Your task to perform on an android device: check out phone information Image 0: 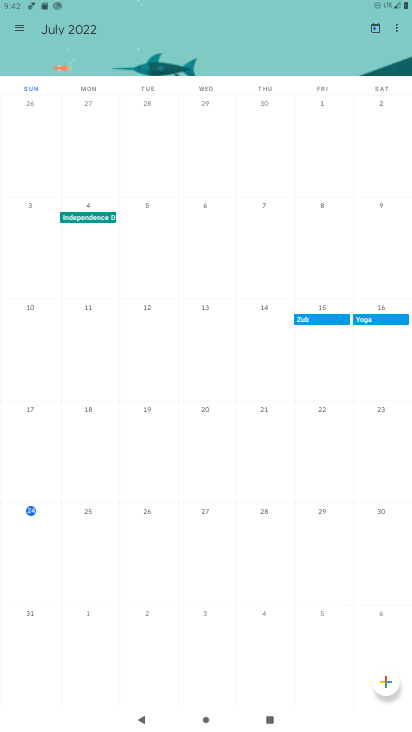
Step 0: press home button
Your task to perform on an android device: check out phone information Image 1: 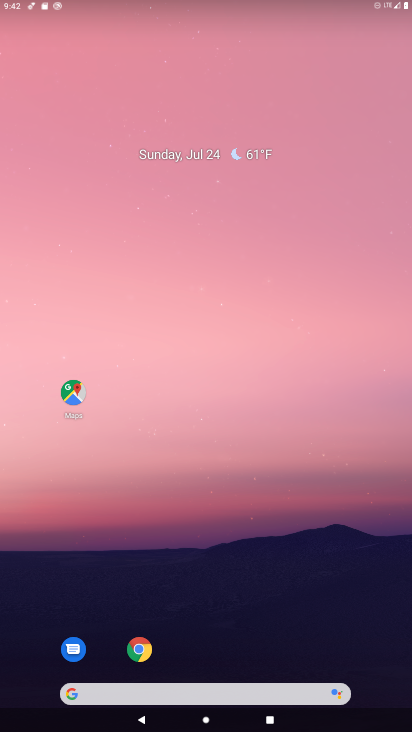
Step 1: drag from (298, 550) to (185, 123)
Your task to perform on an android device: check out phone information Image 2: 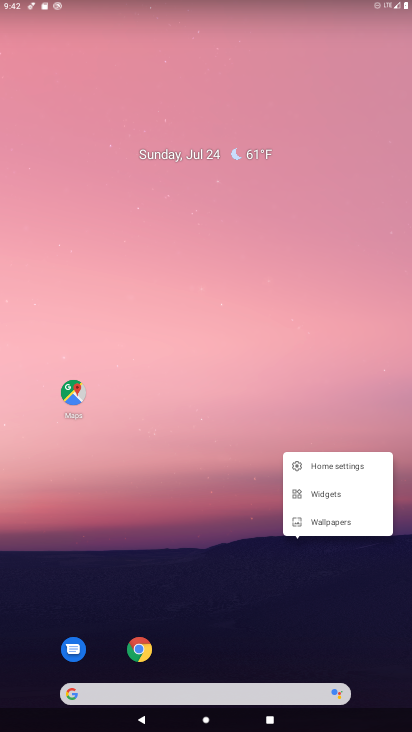
Step 2: click (210, 421)
Your task to perform on an android device: check out phone information Image 3: 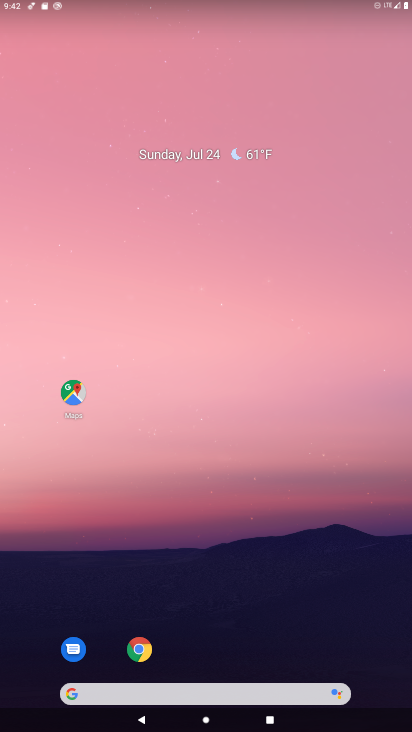
Step 3: drag from (222, 643) to (223, 178)
Your task to perform on an android device: check out phone information Image 4: 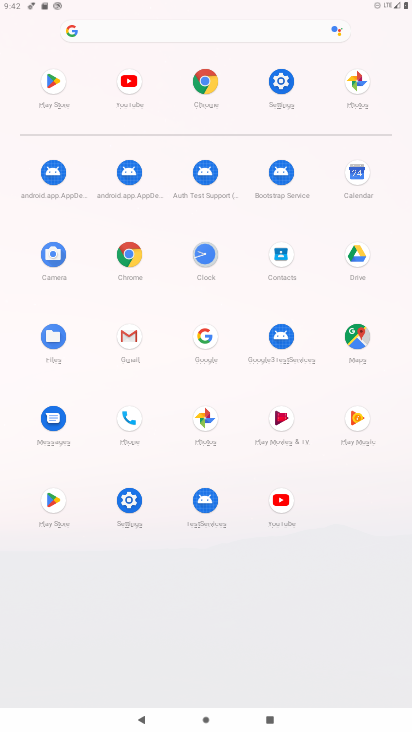
Step 4: click (131, 415)
Your task to perform on an android device: check out phone information Image 5: 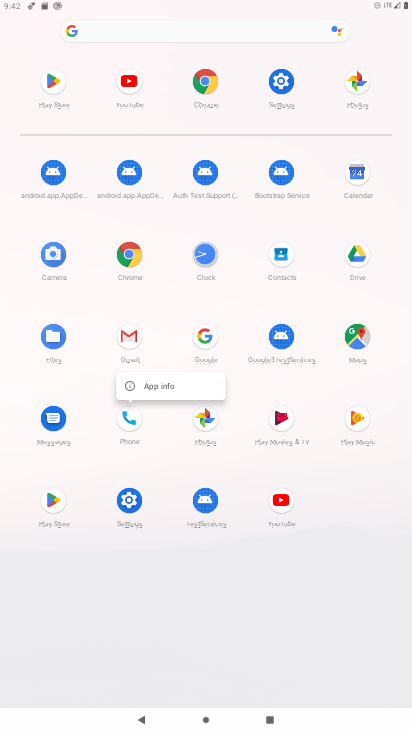
Step 5: click (159, 382)
Your task to perform on an android device: check out phone information Image 6: 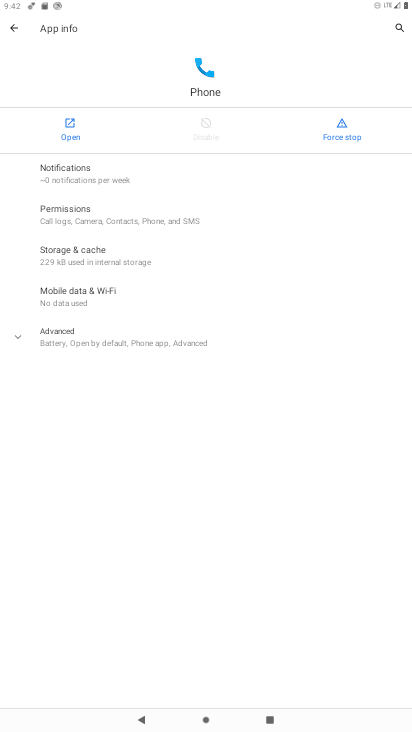
Step 6: click (93, 339)
Your task to perform on an android device: check out phone information Image 7: 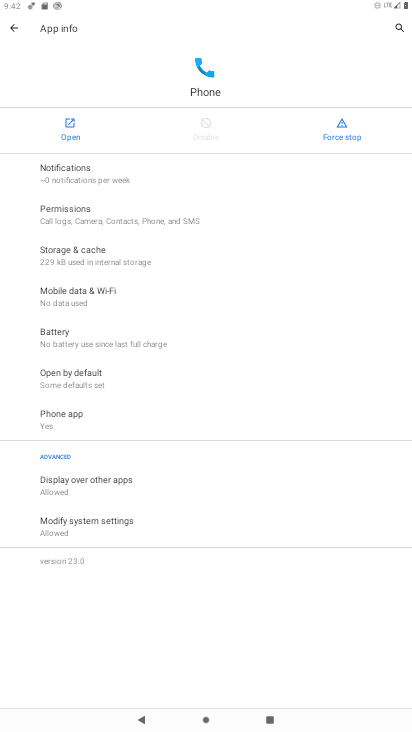
Step 7: task complete